Your task to perform on an android device: Do I have any events this weekend? Image 0: 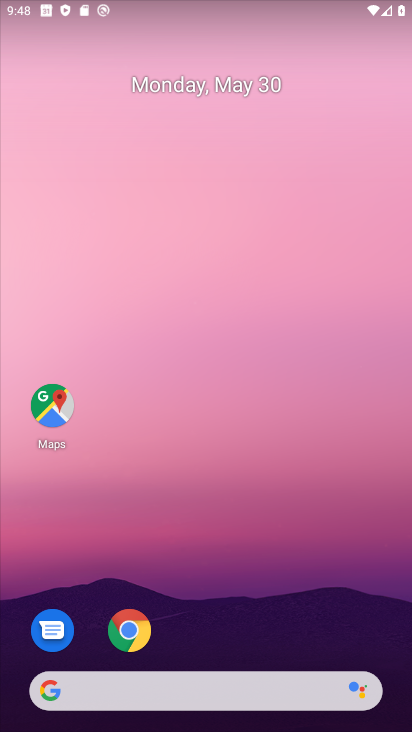
Step 0: drag from (229, 642) to (174, 28)
Your task to perform on an android device: Do I have any events this weekend? Image 1: 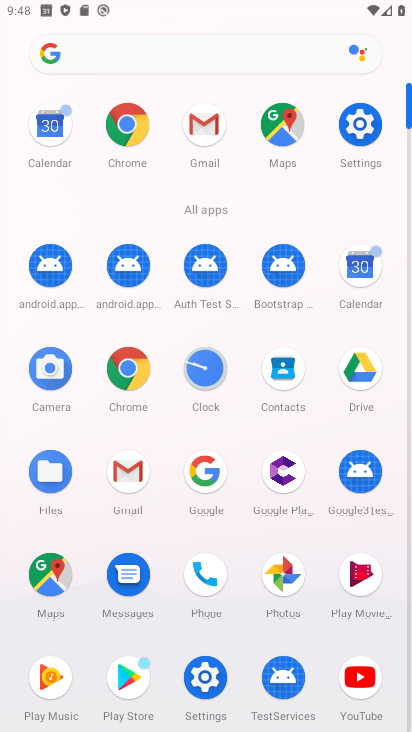
Step 1: click (38, 148)
Your task to perform on an android device: Do I have any events this weekend? Image 2: 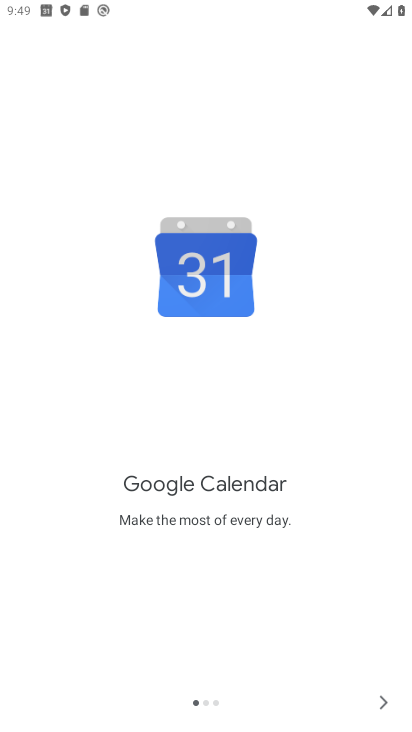
Step 2: click (384, 695)
Your task to perform on an android device: Do I have any events this weekend? Image 3: 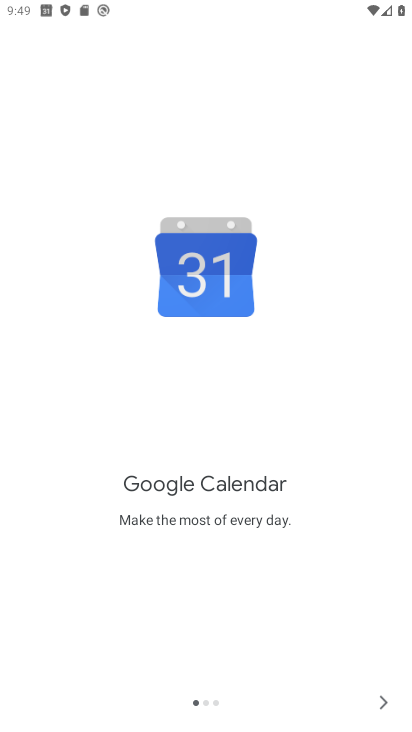
Step 3: click (384, 695)
Your task to perform on an android device: Do I have any events this weekend? Image 4: 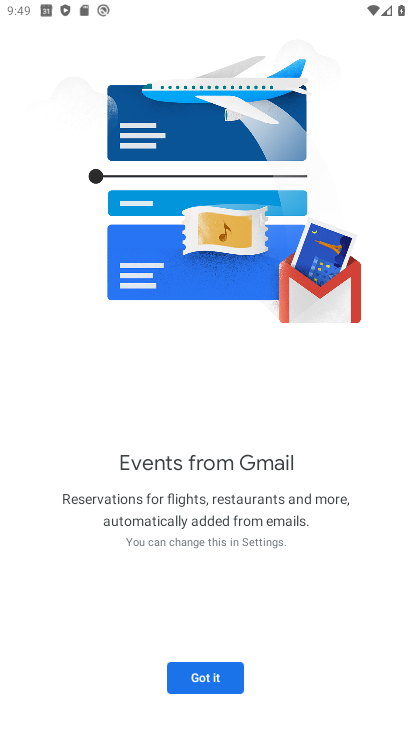
Step 4: click (213, 678)
Your task to perform on an android device: Do I have any events this weekend? Image 5: 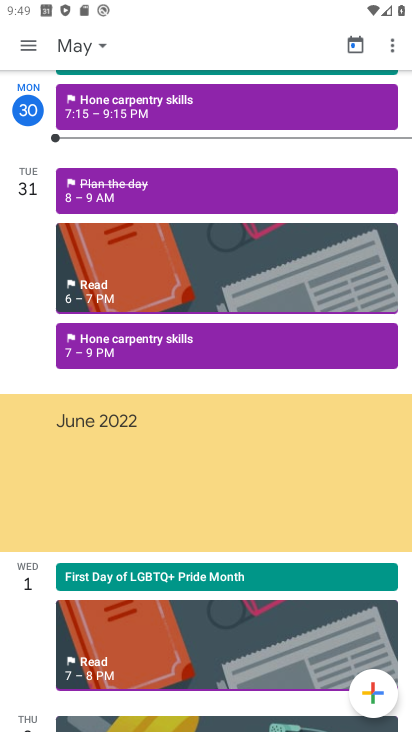
Step 5: task complete